Your task to perform on an android device: Open Google Maps and go to "Timeline" Image 0: 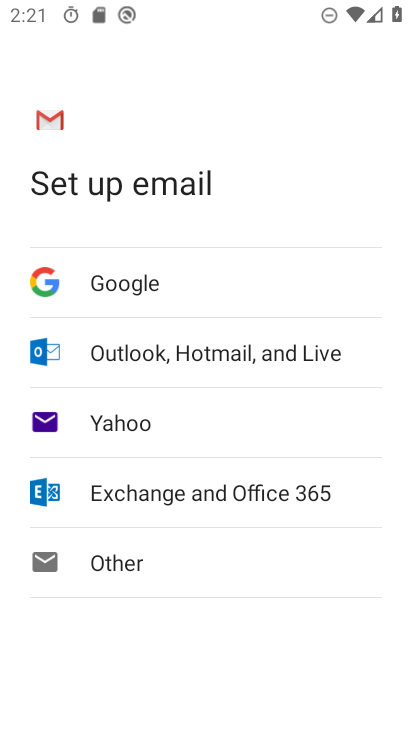
Step 0: press home button
Your task to perform on an android device: Open Google Maps and go to "Timeline" Image 1: 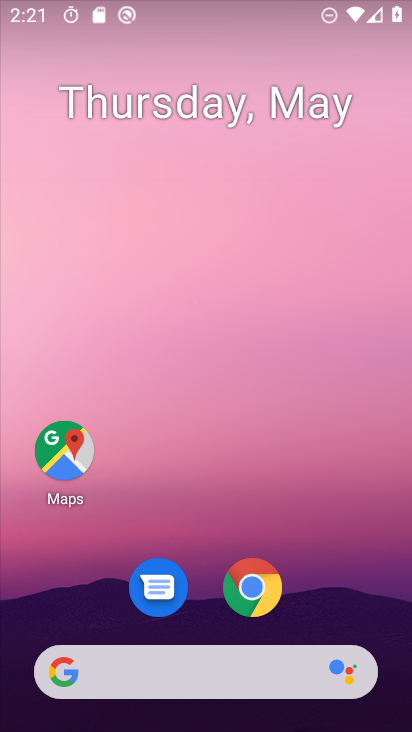
Step 1: drag from (332, 349) to (340, 54)
Your task to perform on an android device: Open Google Maps and go to "Timeline" Image 2: 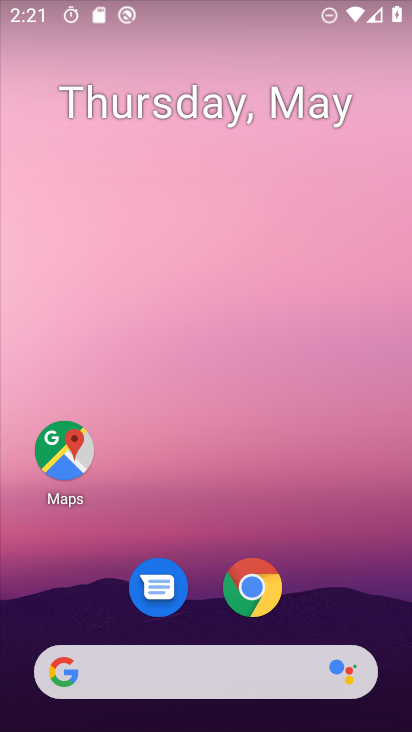
Step 2: drag from (324, 475) to (295, 2)
Your task to perform on an android device: Open Google Maps and go to "Timeline" Image 3: 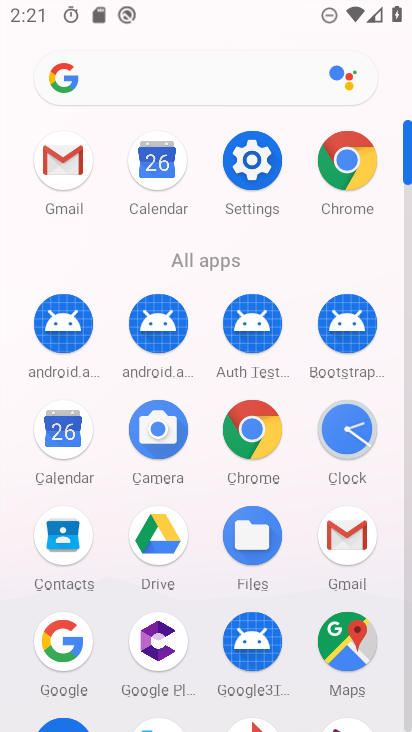
Step 3: click (341, 644)
Your task to perform on an android device: Open Google Maps and go to "Timeline" Image 4: 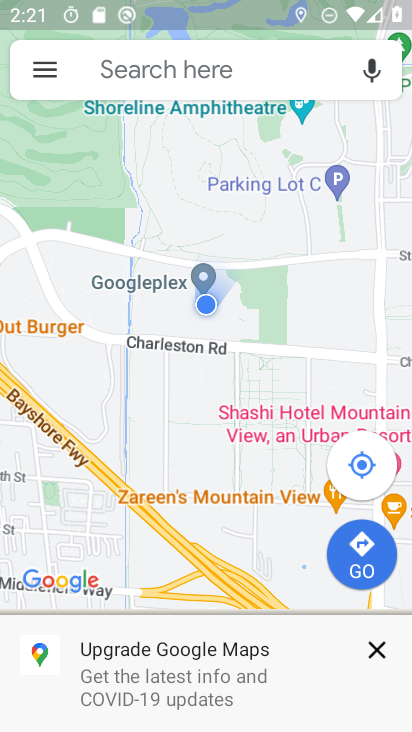
Step 4: click (37, 56)
Your task to perform on an android device: Open Google Maps and go to "Timeline" Image 5: 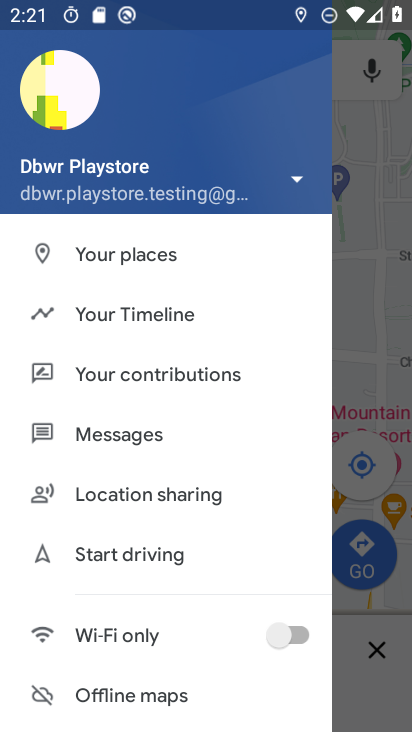
Step 5: click (155, 312)
Your task to perform on an android device: Open Google Maps and go to "Timeline" Image 6: 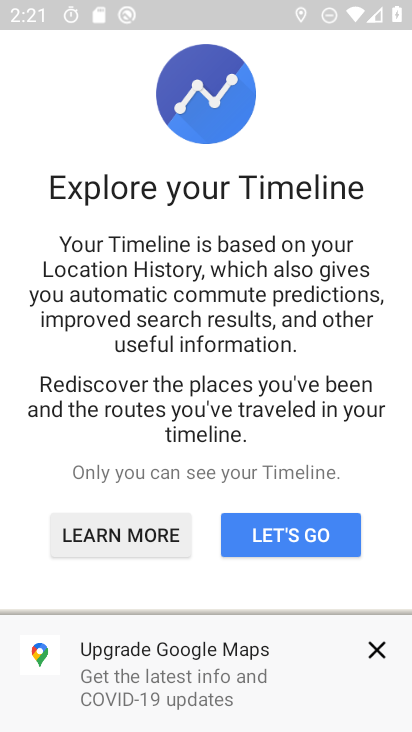
Step 6: click (293, 517)
Your task to perform on an android device: Open Google Maps and go to "Timeline" Image 7: 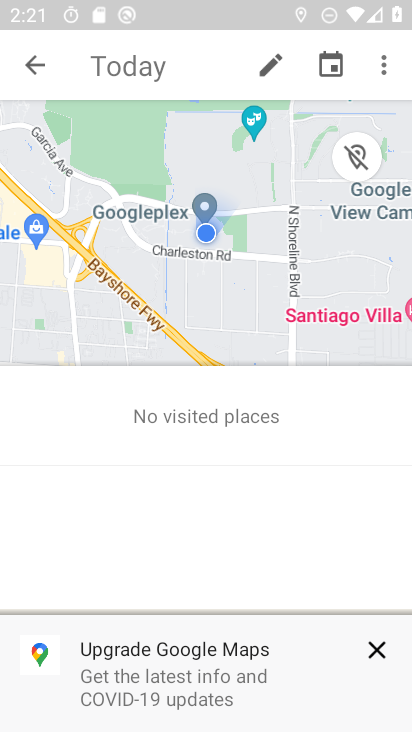
Step 7: task complete